Your task to perform on an android device: What's a good restaurant in Phoenix? Image 0: 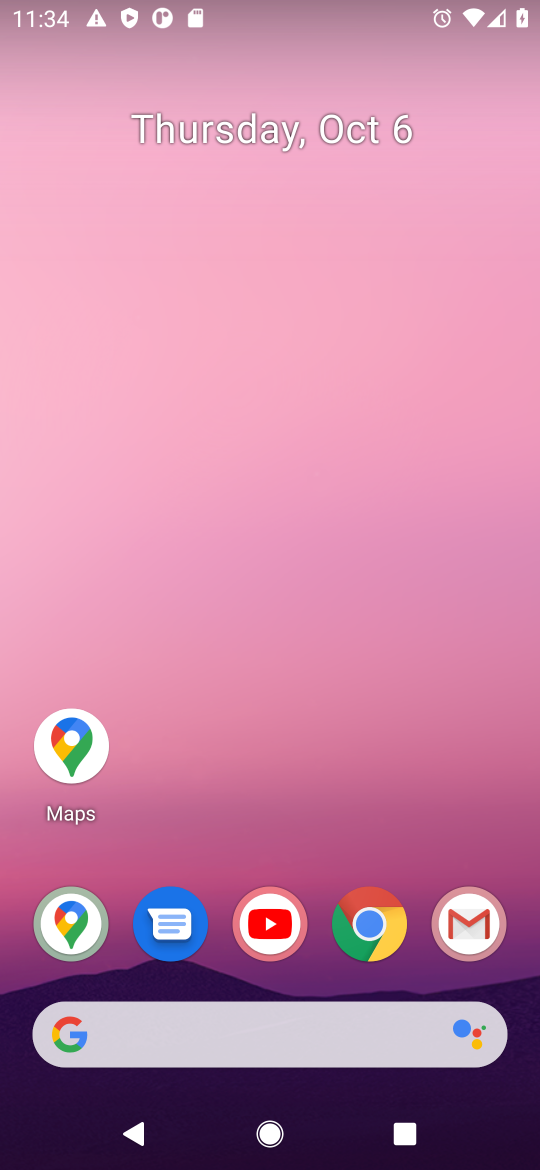
Step 0: click (374, 916)
Your task to perform on an android device: What's a good restaurant in Phoenix? Image 1: 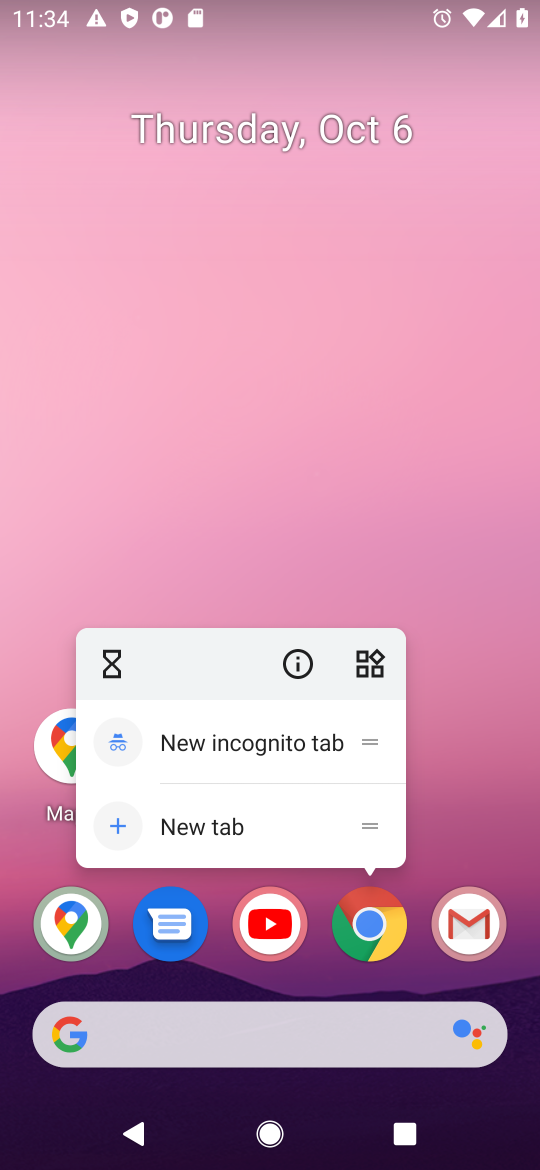
Step 1: click (374, 919)
Your task to perform on an android device: What's a good restaurant in Phoenix? Image 2: 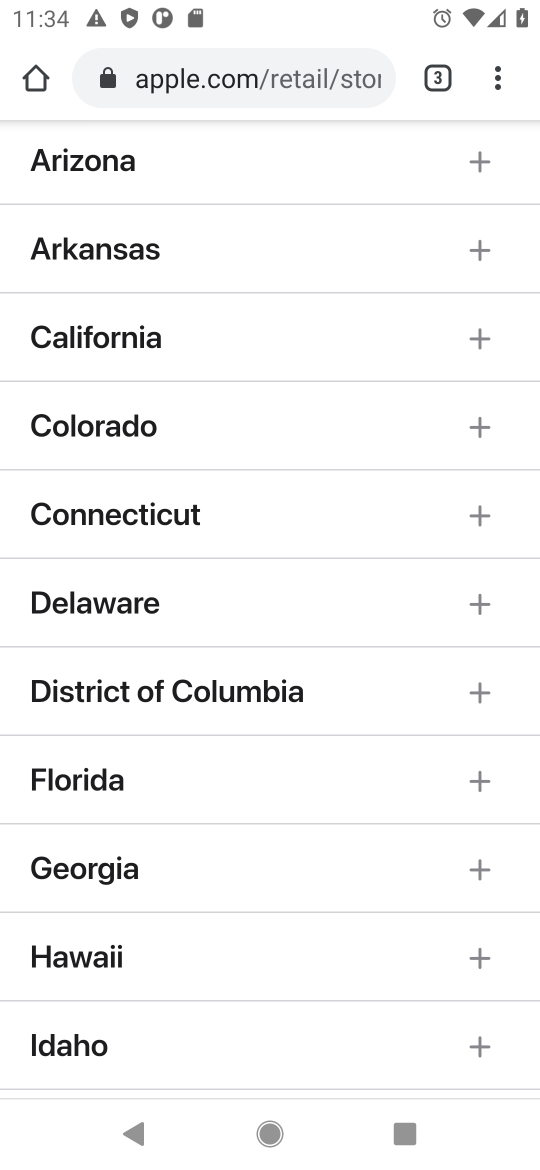
Step 2: click (330, 75)
Your task to perform on an android device: What's a good restaurant in Phoenix? Image 3: 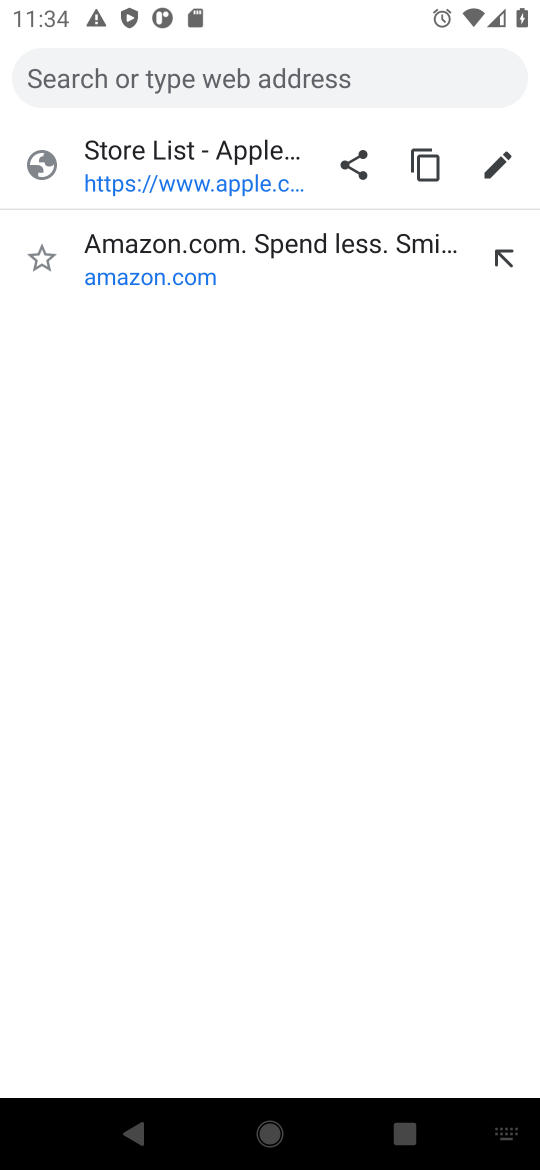
Step 3: type " good restaurant in Phoenix"
Your task to perform on an android device: What's a good restaurant in Phoenix? Image 4: 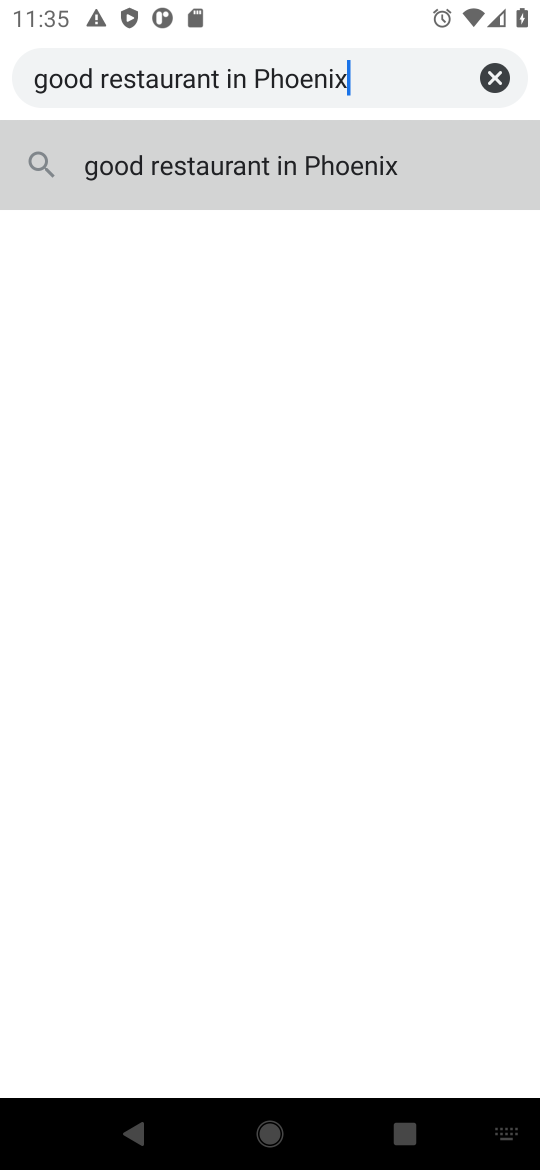
Step 4: click (288, 172)
Your task to perform on an android device: What's a good restaurant in Phoenix? Image 5: 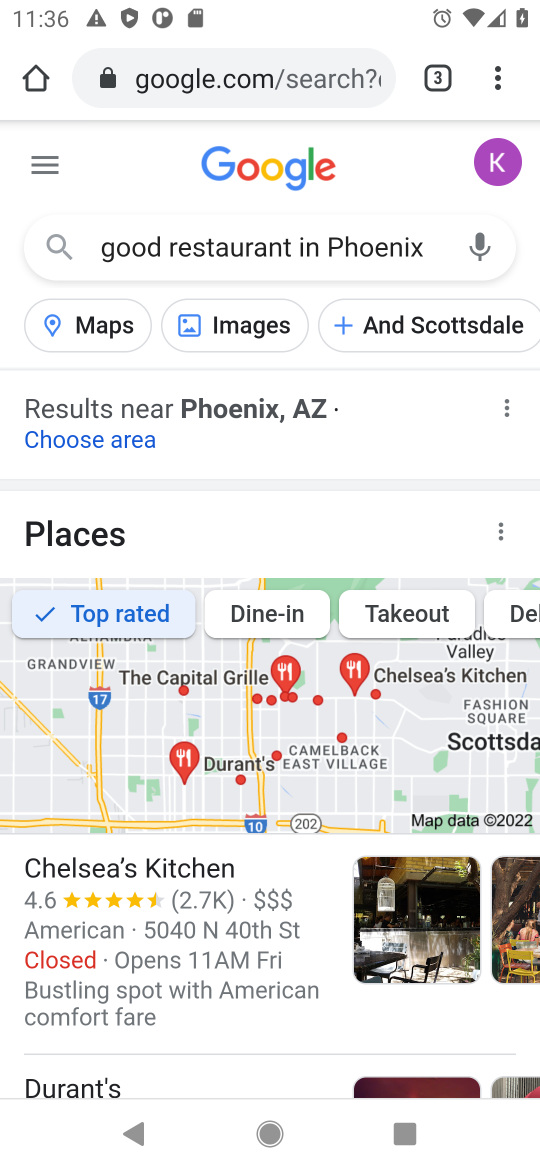
Step 5: task complete